Your task to perform on an android device: Open network settings Image 0: 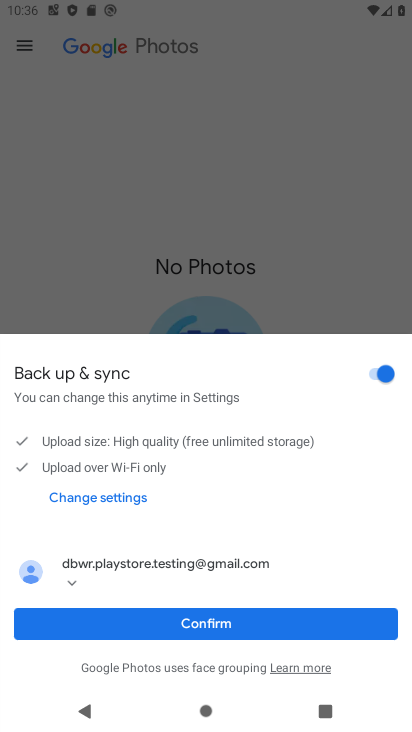
Step 0: click (295, 625)
Your task to perform on an android device: Open network settings Image 1: 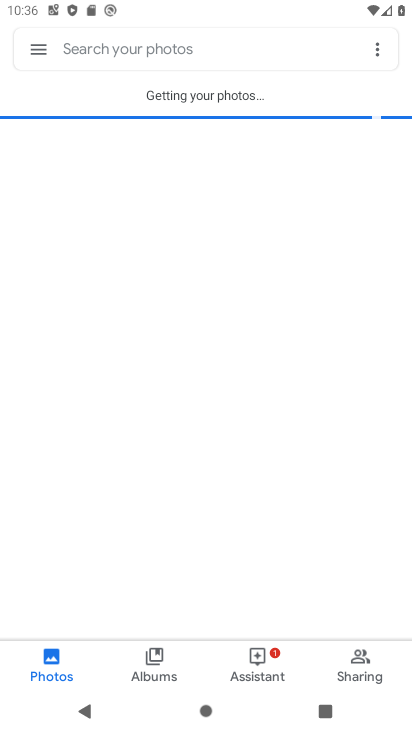
Step 1: press home button
Your task to perform on an android device: Open network settings Image 2: 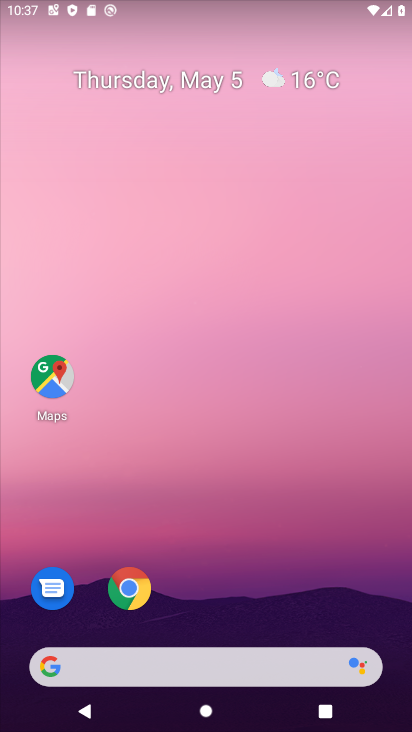
Step 2: drag from (245, 609) to (264, 216)
Your task to perform on an android device: Open network settings Image 3: 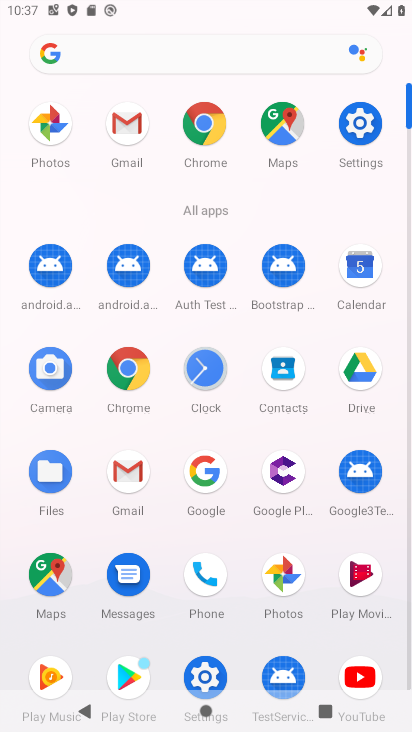
Step 3: click (362, 132)
Your task to perform on an android device: Open network settings Image 4: 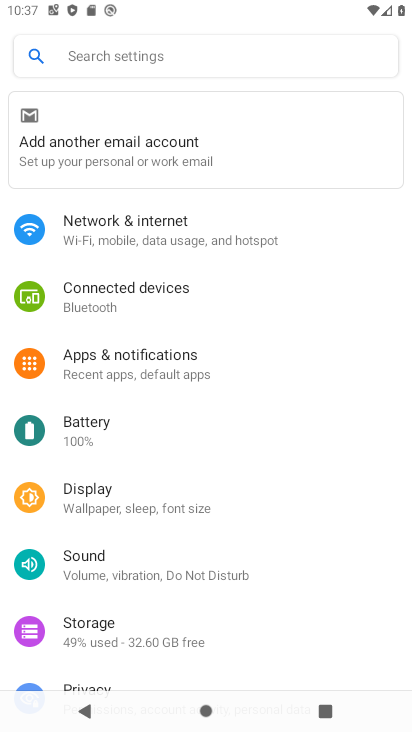
Step 4: click (296, 235)
Your task to perform on an android device: Open network settings Image 5: 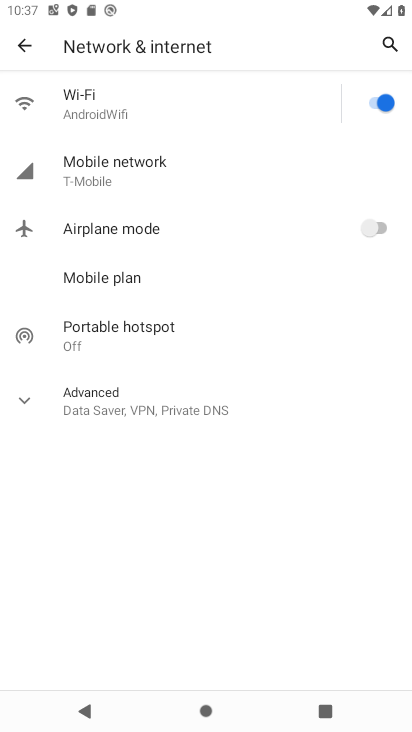
Step 5: task complete